Your task to perform on an android device: check the backup settings in the google photos Image 0: 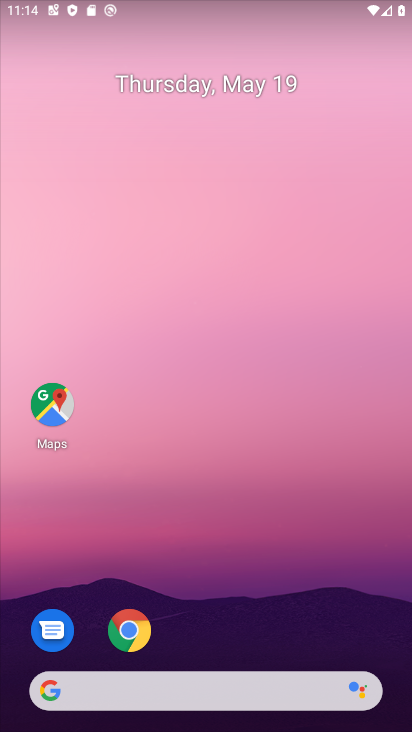
Step 0: drag from (257, 594) to (165, 190)
Your task to perform on an android device: check the backup settings in the google photos Image 1: 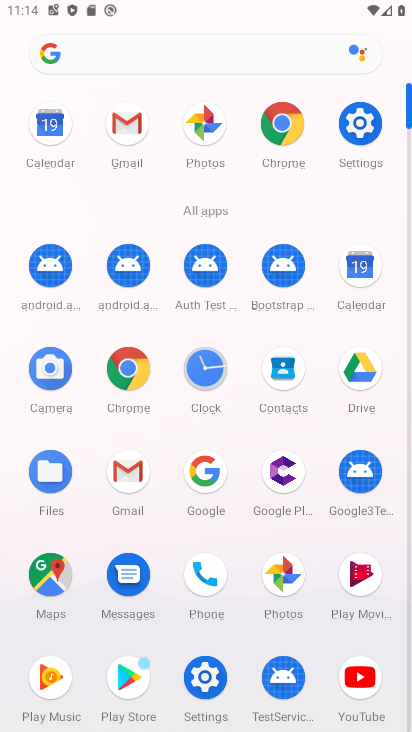
Step 1: click (201, 123)
Your task to perform on an android device: check the backup settings in the google photos Image 2: 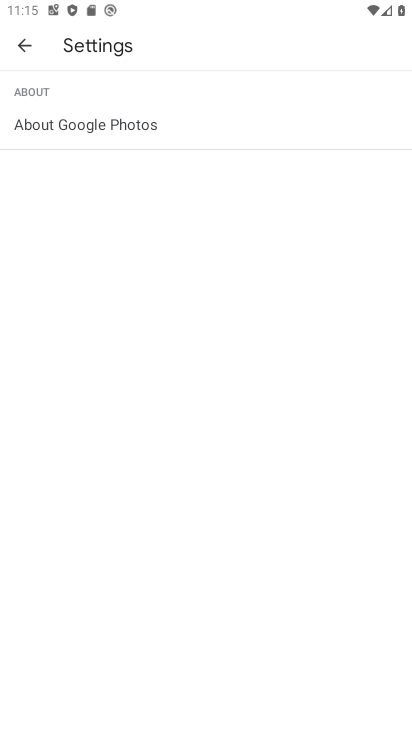
Step 2: press back button
Your task to perform on an android device: check the backup settings in the google photos Image 3: 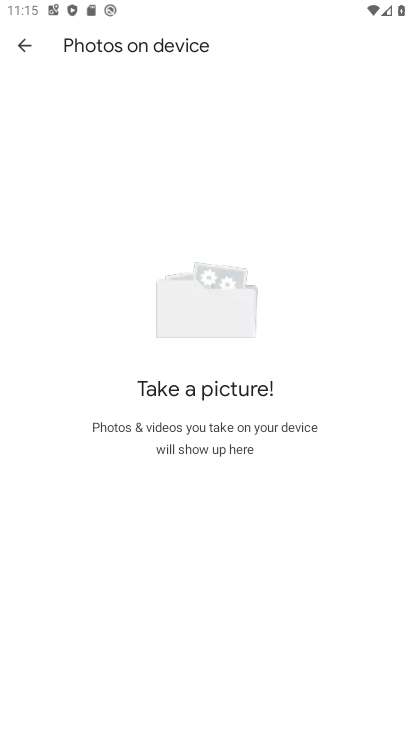
Step 3: press back button
Your task to perform on an android device: check the backup settings in the google photos Image 4: 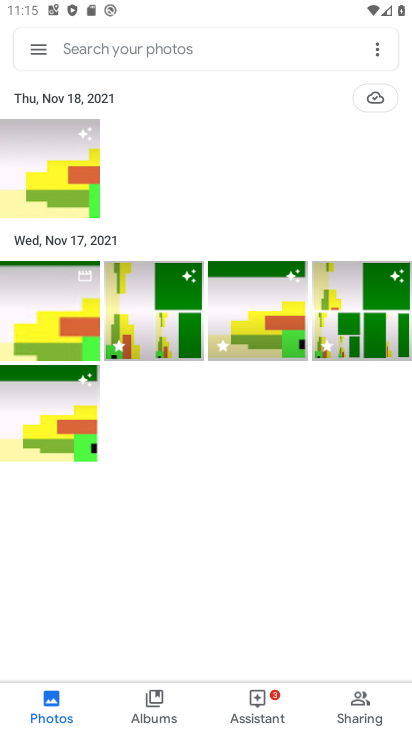
Step 4: click (42, 54)
Your task to perform on an android device: check the backup settings in the google photos Image 5: 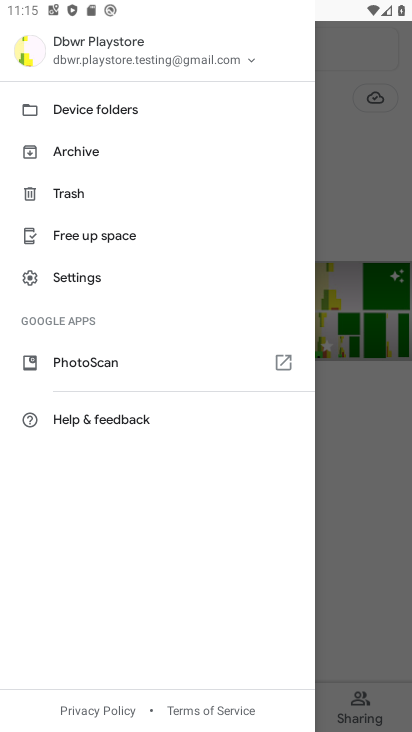
Step 5: click (69, 282)
Your task to perform on an android device: check the backup settings in the google photos Image 6: 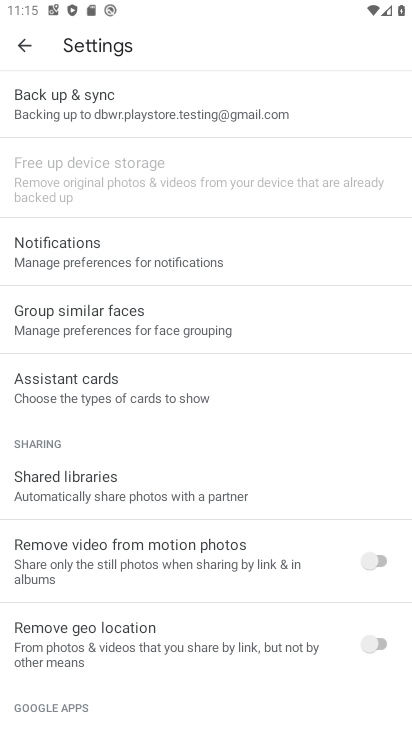
Step 6: click (72, 109)
Your task to perform on an android device: check the backup settings in the google photos Image 7: 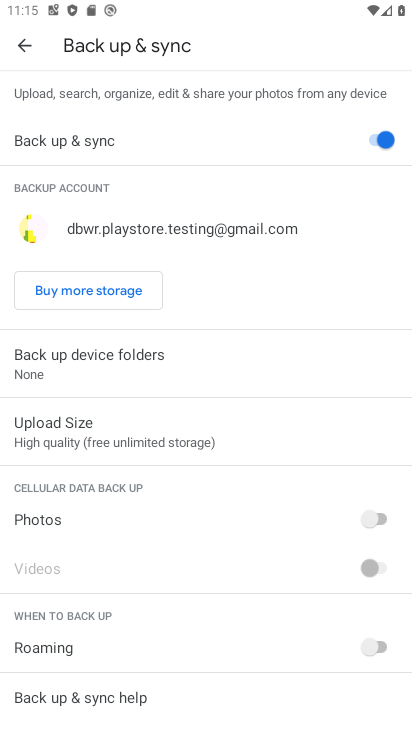
Step 7: task complete